Your task to perform on an android device: toggle wifi Image 0: 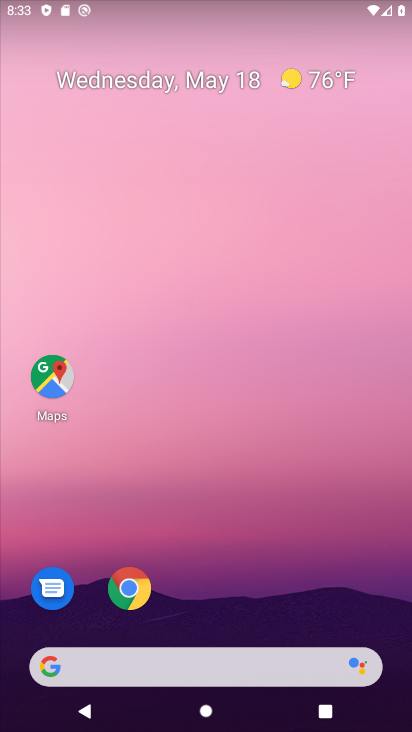
Step 0: drag from (337, 607) to (274, 203)
Your task to perform on an android device: toggle wifi Image 1: 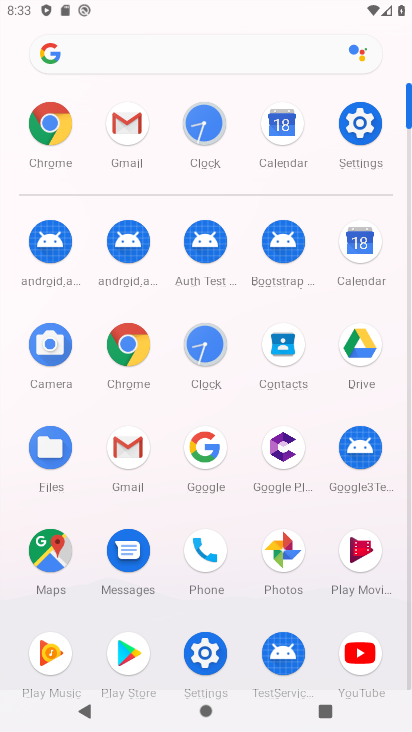
Step 1: click (353, 126)
Your task to perform on an android device: toggle wifi Image 2: 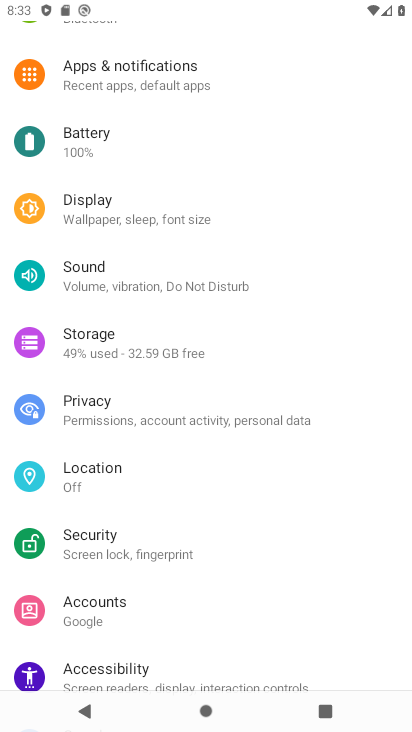
Step 2: drag from (207, 203) to (98, 535)
Your task to perform on an android device: toggle wifi Image 3: 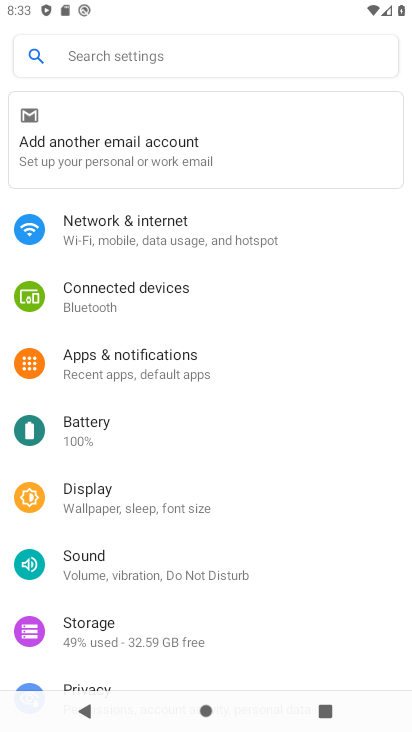
Step 3: drag from (200, 193) to (170, 550)
Your task to perform on an android device: toggle wifi Image 4: 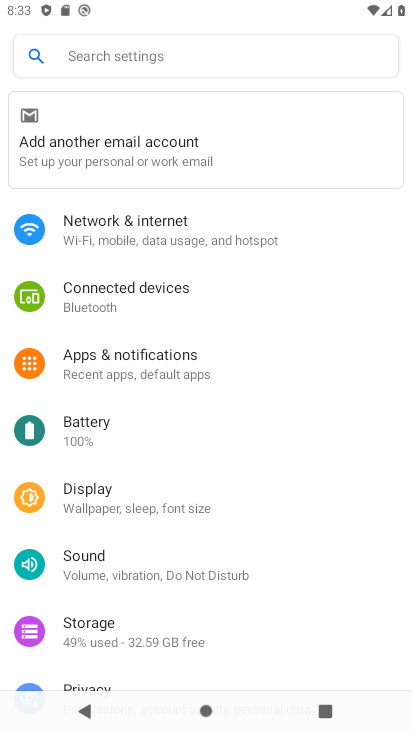
Step 4: click (174, 232)
Your task to perform on an android device: toggle wifi Image 5: 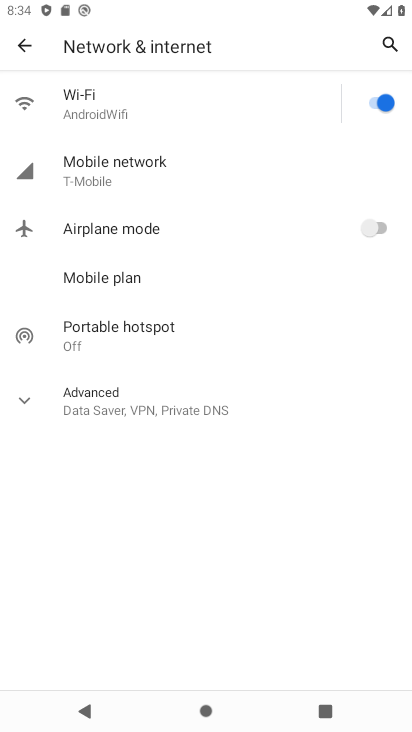
Step 5: click (364, 113)
Your task to perform on an android device: toggle wifi Image 6: 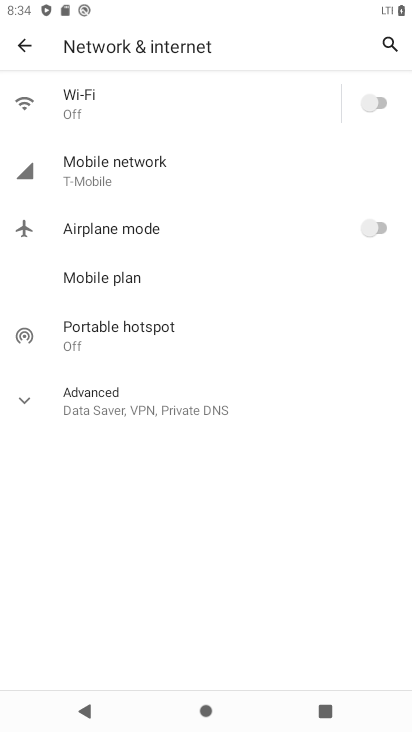
Step 6: task complete